Your task to perform on an android device: check google app version Image 0: 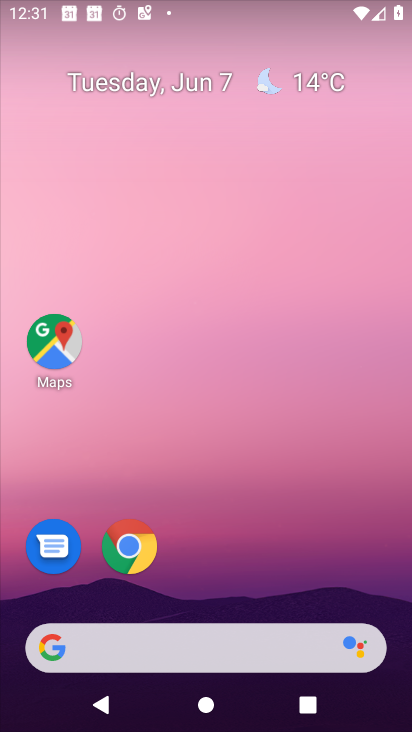
Step 0: click (50, 641)
Your task to perform on an android device: check google app version Image 1: 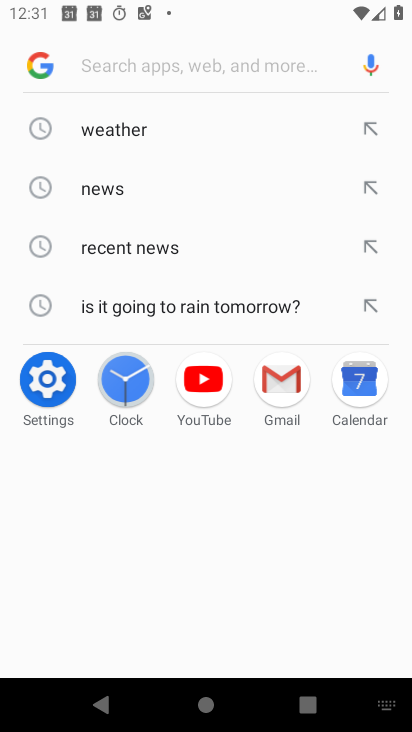
Step 1: click (26, 61)
Your task to perform on an android device: check google app version Image 2: 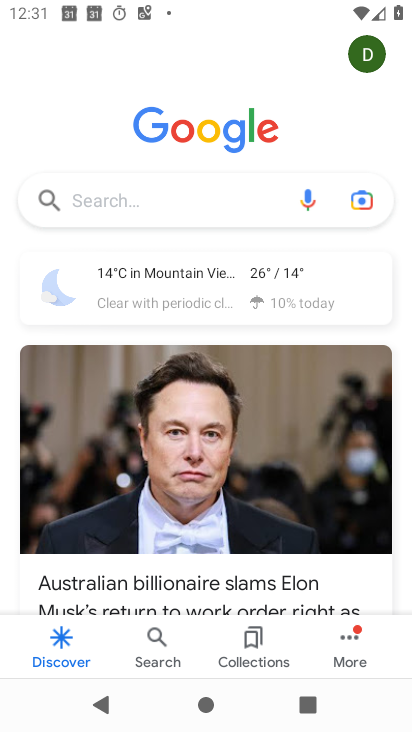
Step 2: click (349, 641)
Your task to perform on an android device: check google app version Image 3: 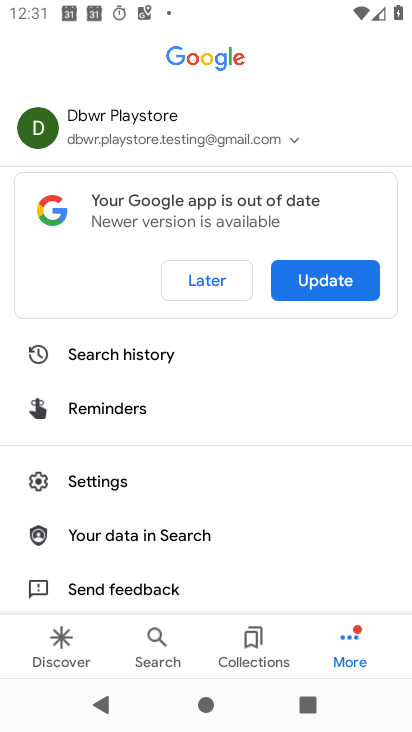
Step 3: click (111, 482)
Your task to perform on an android device: check google app version Image 4: 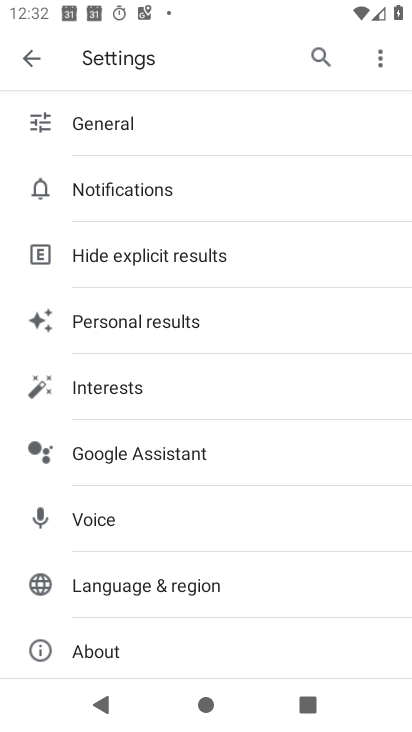
Step 4: drag from (118, 564) to (178, 388)
Your task to perform on an android device: check google app version Image 5: 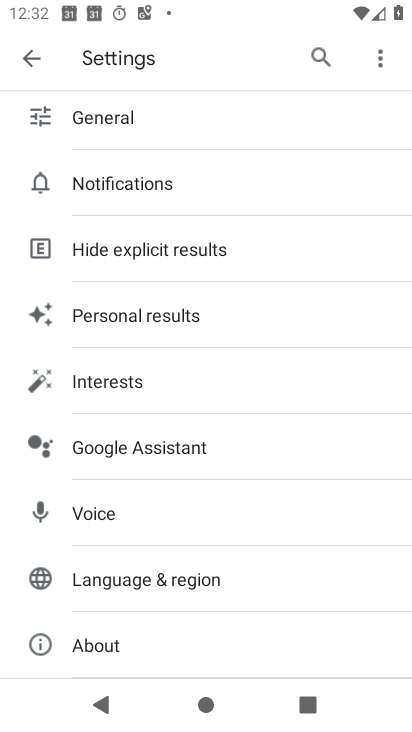
Step 5: click (110, 642)
Your task to perform on an android device: check google app version Image 6: 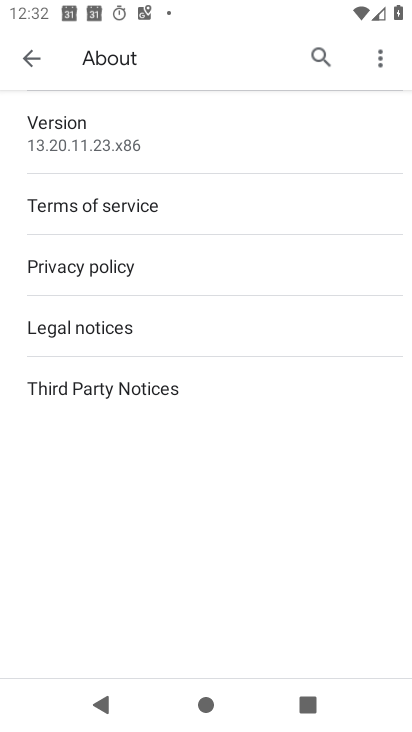
Step 6: task complete